Your task to perform on an android device: see sites visited before in the chrome app Image 0: 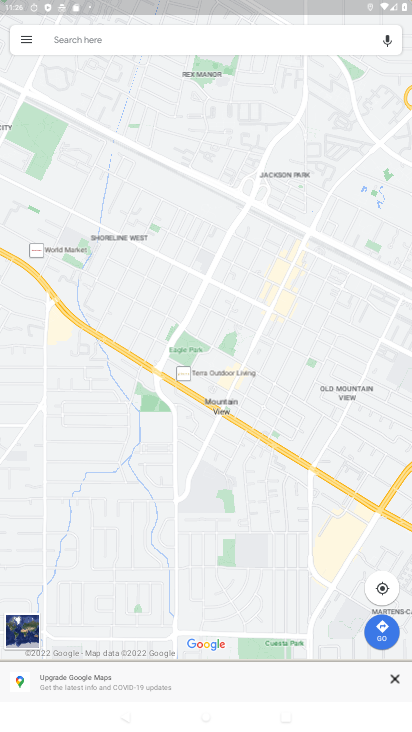
Step 0: press home button
Your task to perform on an android device: see sites visited before in the chrome app Image 1: 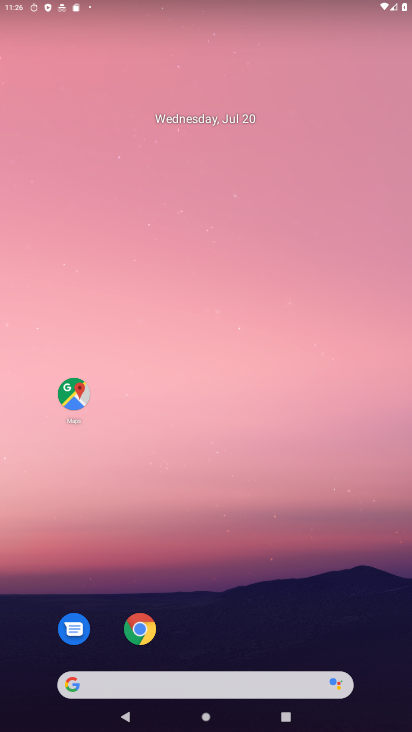
Step 1: drag from (250, 682) to (223, 16)
Your task to perform on an android device: see sites visited before in the chrome app Image 2: 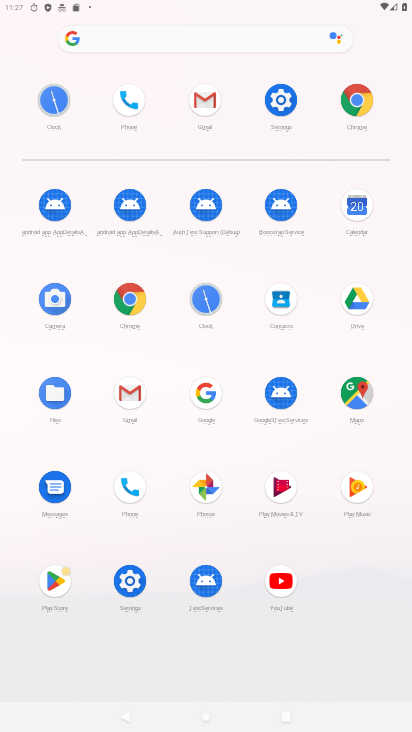
Step 2: click (136, 302)
Your task to perform on an android device: see sites visited before in the chrome app Image 3: 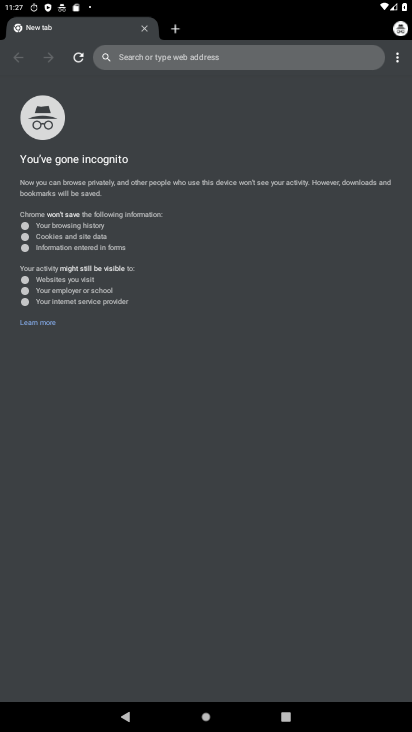
Step 3: click (401, 57)
Your task to perform on an android device: see sites visited before in the chrome app Image 4: 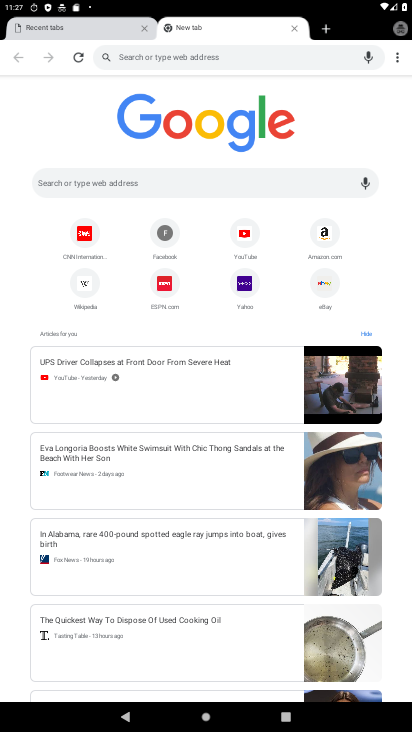
Step 4: task complete